Your task to perform on an android device: Open settings on Google Maps Image 0: 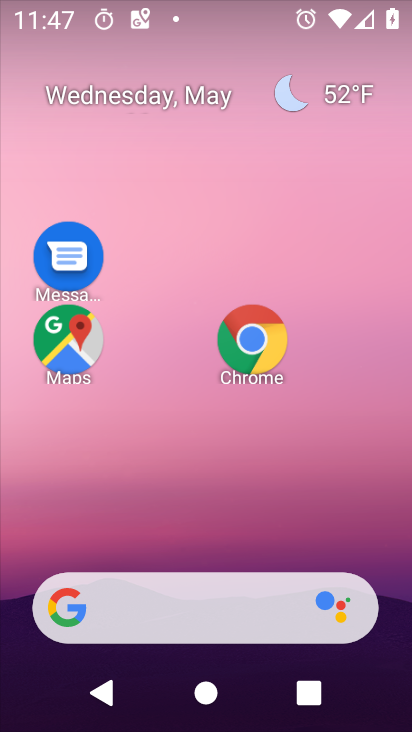
Step 0: click (81, 343)
Your task to perform on an android device: Open settings on Google Maps Image 1: 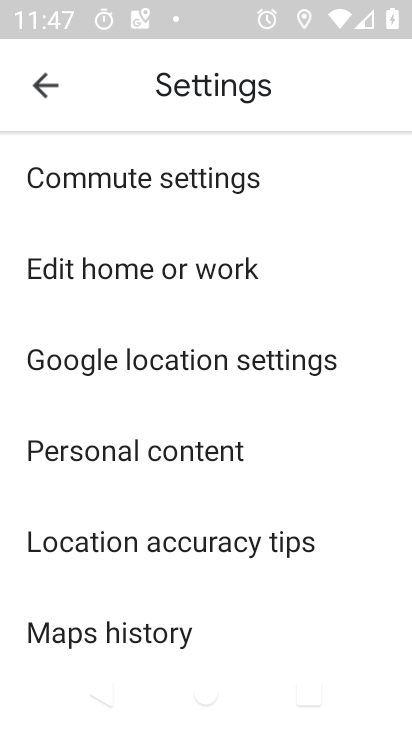
Step 1: task complete